Your task to perform on an android device: check battery use Image 0: 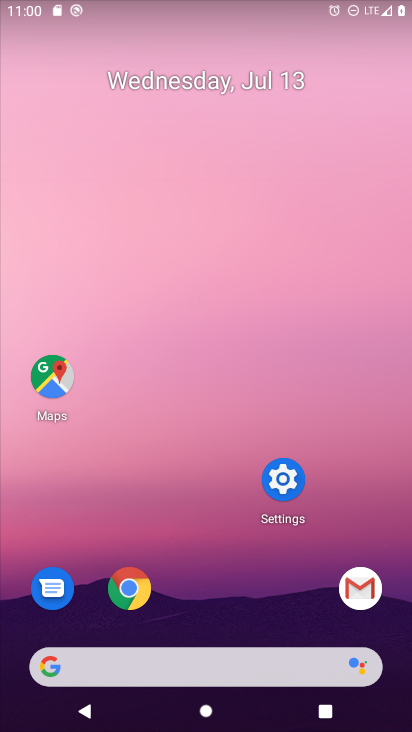
Step 0: click (292, 494)
Your task to perform on an android device: check battery use Image 1: 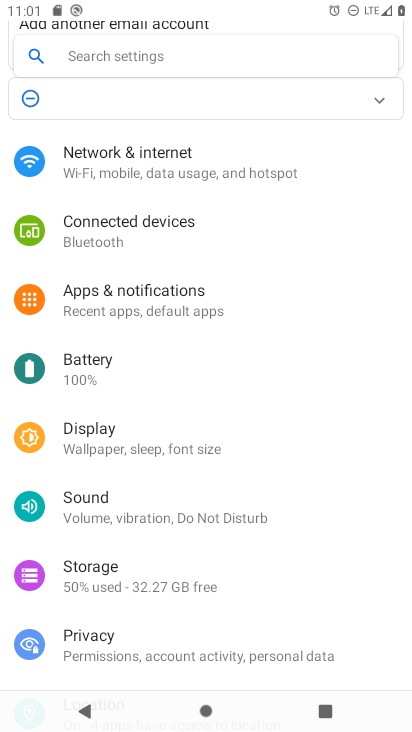
Step 1: click (102, 378)
Your task to perform on an android device: check battery use Image 2: 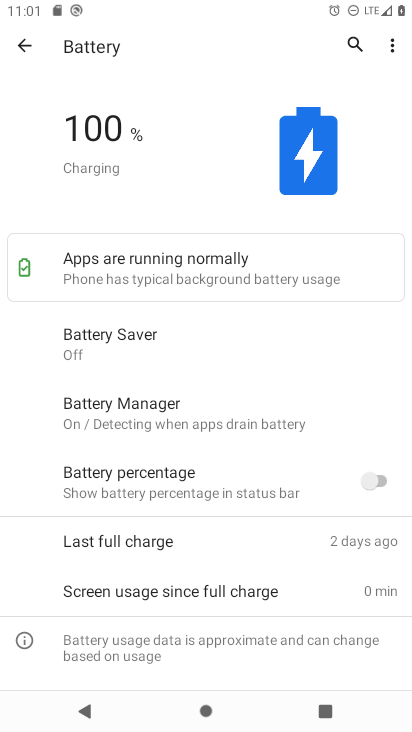
Step 2: task complete